Your task to perform on an android device: Go to accessibility settings Image 0: 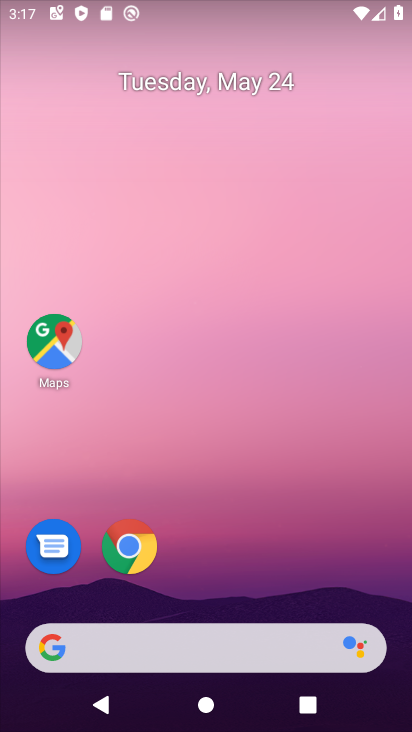
Step 0: drag from (285, 414) to (197, 20)
Your task to perform on an android device: Go to accessibility settings Image 1: 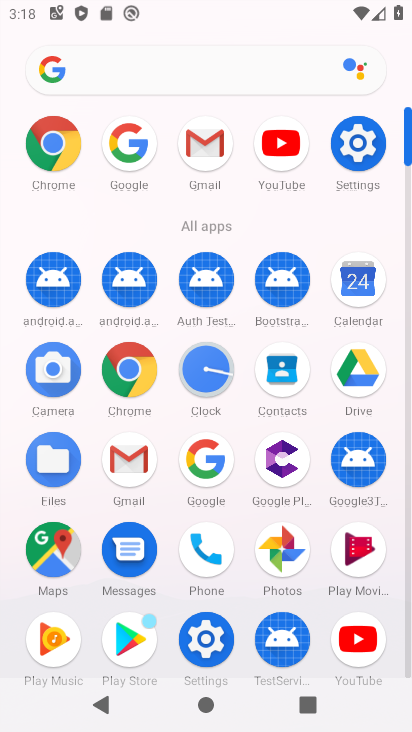
Step 1: click (358, 154)
Your task to perform on an android device: Go to accessibility settings Image 2: 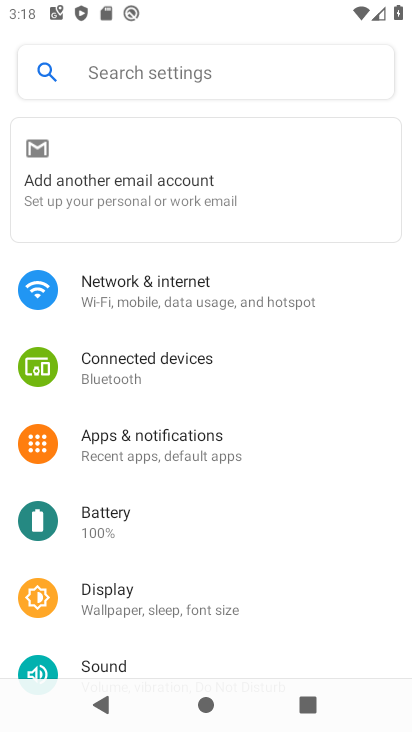
Step 2: drag from (252, 530) to (244, 158)
Your task to perform on an android device: Go to accessibility settings Image 3: 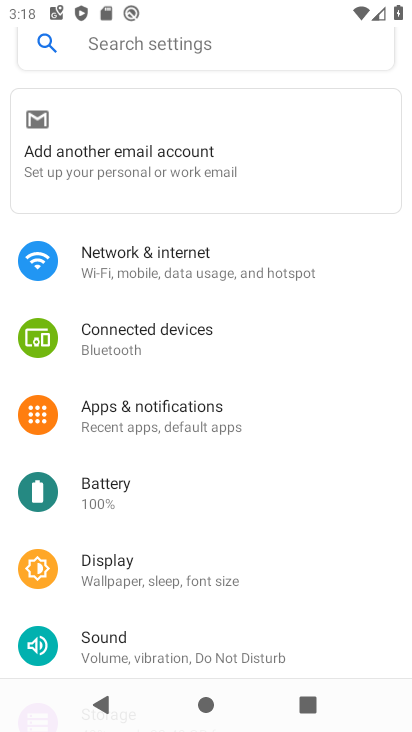
Step 3: drag from (225, 609) to (257, 26)
Your task to perform on an android device: Go to accessibility settings Image 4: 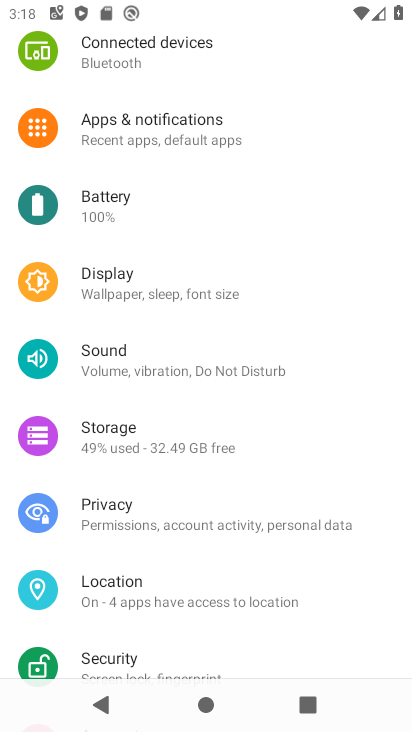
Step 4: drag from (245, 550) to (146, 0)
Your task to perform on an android device: Go to accessibility settings Image 5: 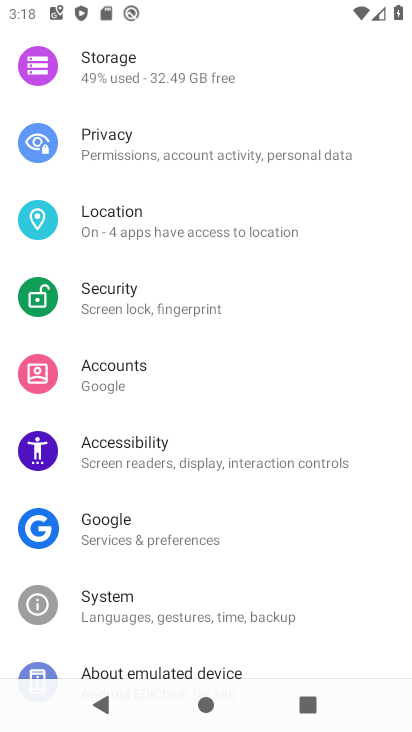
Step 5: click (198, 445)
Your task to perform on an android device: Go to accessibility settings Image 6: 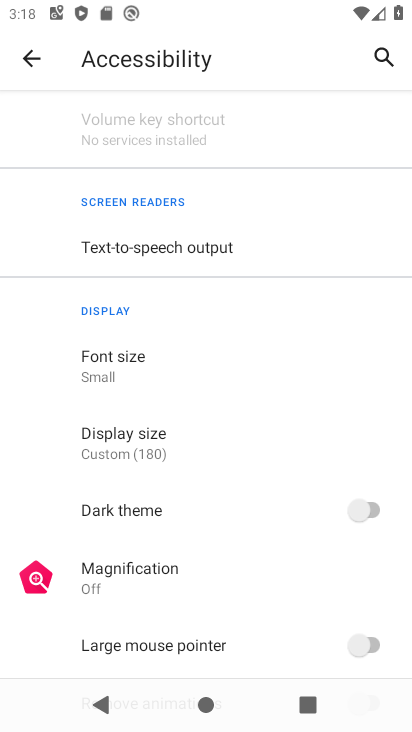
Step 6: task complete